Your task to perform on an android device: Search for vegetarian restaurants on Maps Image 0: 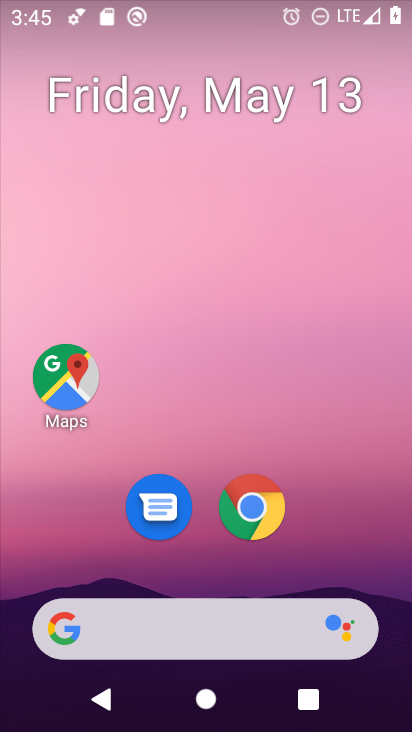
Step 0: drag from (349, 478) to (377, 129)
Your task to perform on an android device: Search for vegetarian restaurants on Maps Image 1: 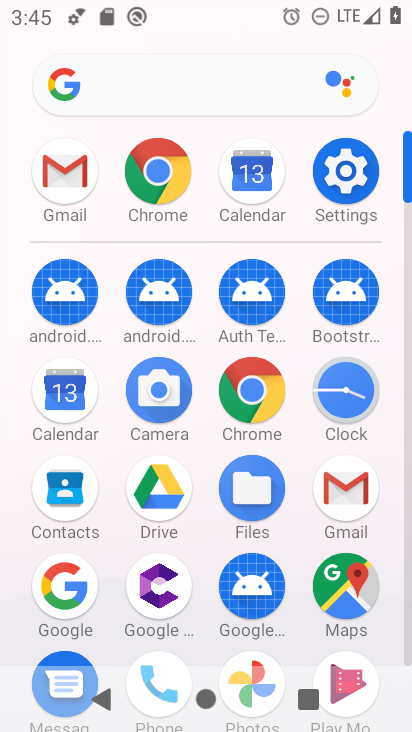
Step 1: click (352, 608)
Your task to perform on an android device: Search for vegetarian restaurants on Maps Image 2: 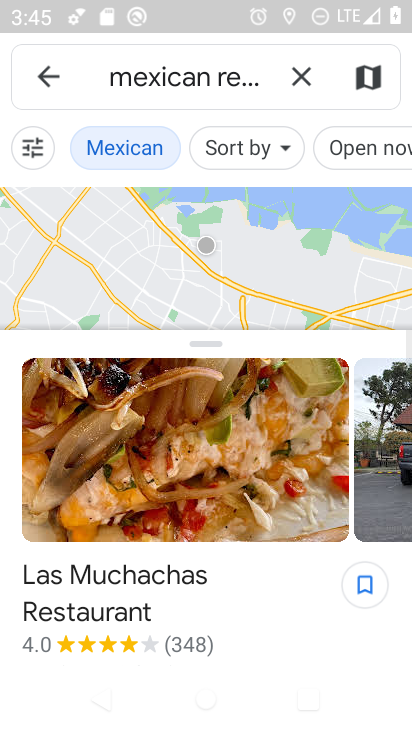
Step 2: click (312, 74)
Your task to perform on an android device: Search for vegetarian restaurants on Maps Image 3: 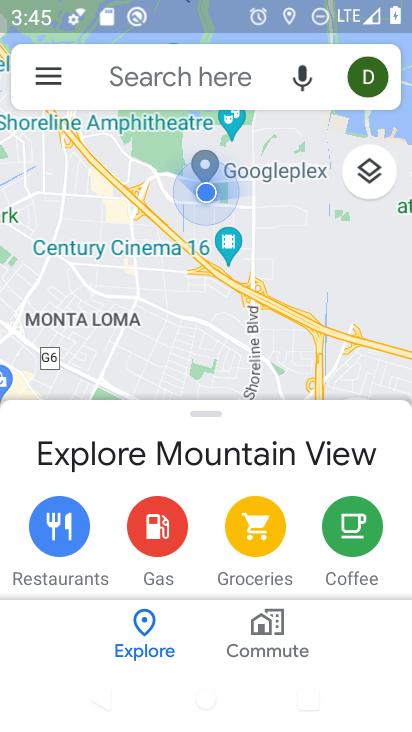
Step 3: click (203, 86)
Your task to perform on an android device: Search for vegetarian restaurants on Maps Image 4: 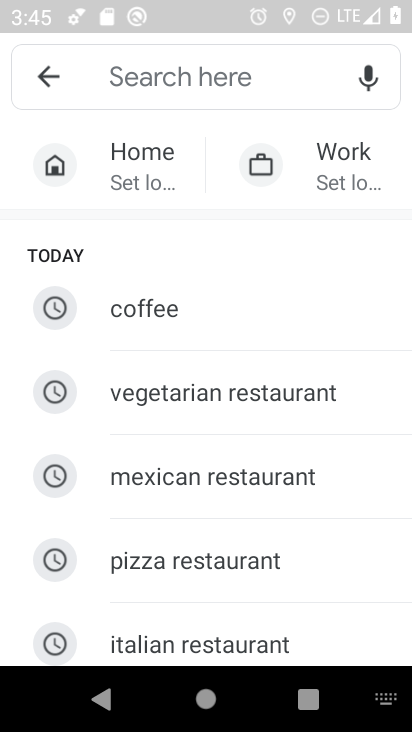
Step 4: click (167, 401)
Your task to perform on an android device: Search for vegetarian restaurants on Maps Image 5: 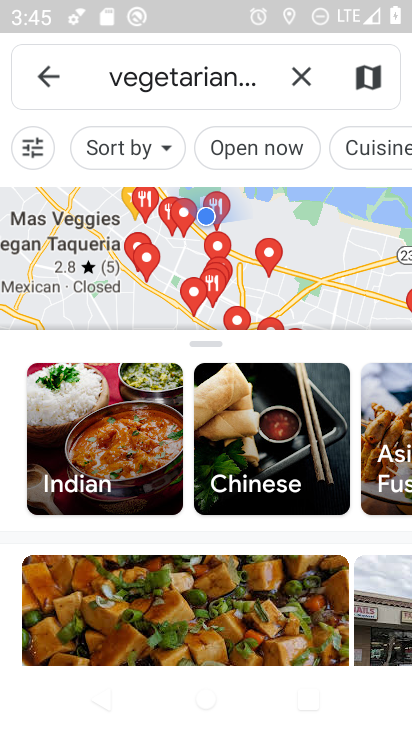
Step 5: task complete